Your task to perform on an android device: see tabs open on other devices in the chrome app Image 0: 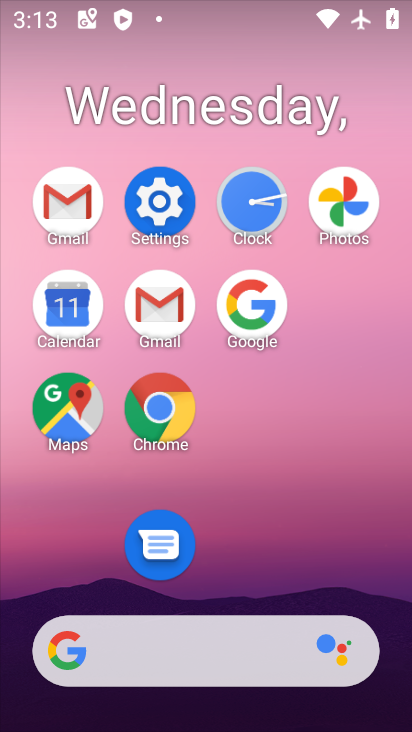
Step 0: click (161, 405)
Your task to perform on an android device: see tabs open on other devices in the chrome app Image 1: 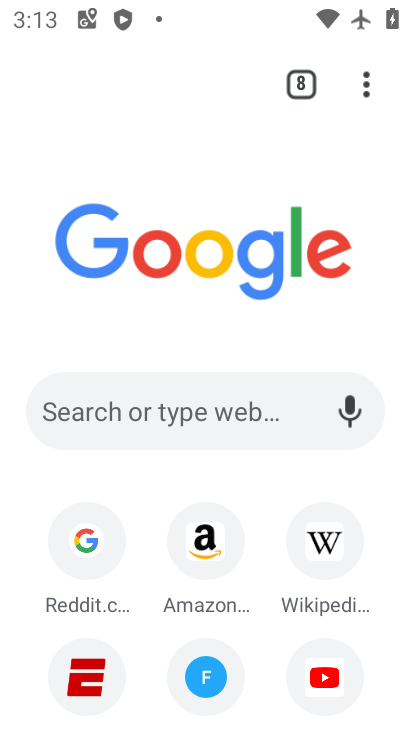
Step 1: click (358, 83)
Your task to perform on an android device: see tabs open on other devices in the chrome app Image 2: 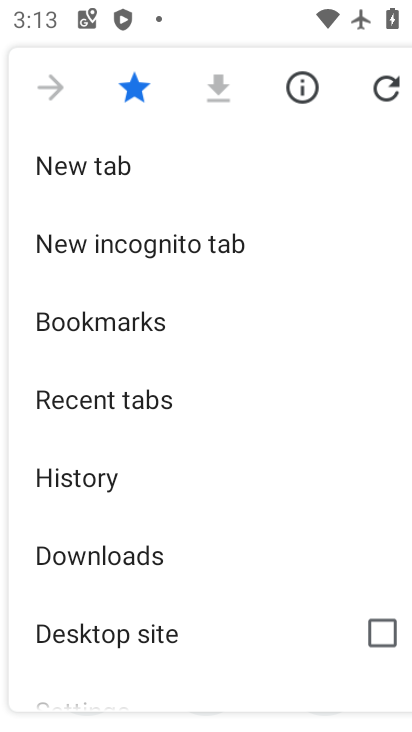
Step 2: click (151, 400)
Your task to perform on an android device: see tabs open on other devices in the chrome app Image 3: 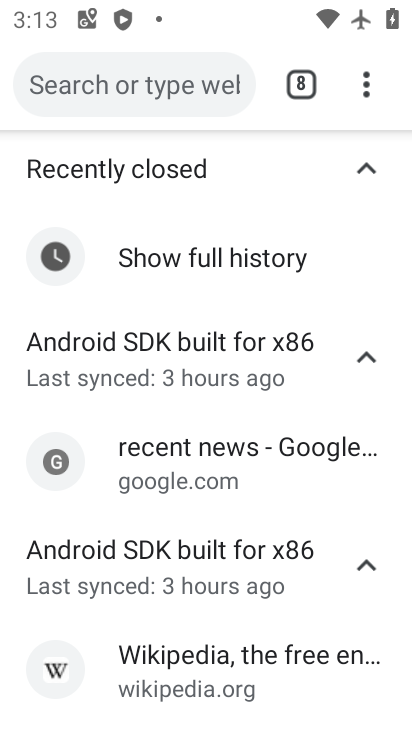
Step 3: task complete